Your task to perform on an android device: star an email in the gmail app Image 0: 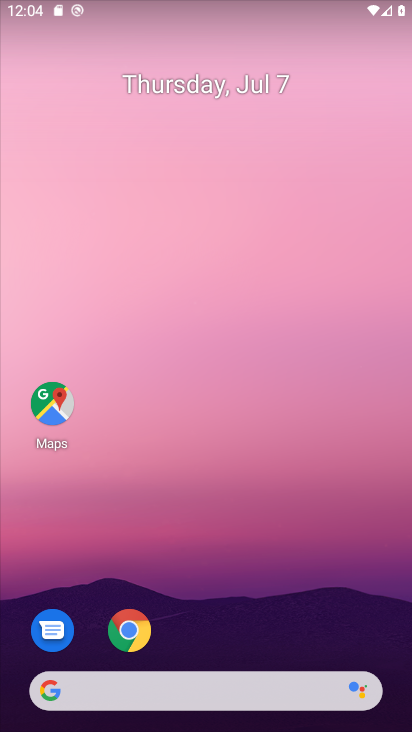
Step 0: drag from (163, 631) to (205, 241)
Your task to perform on an android device: star an email in the gmail app Image 1: 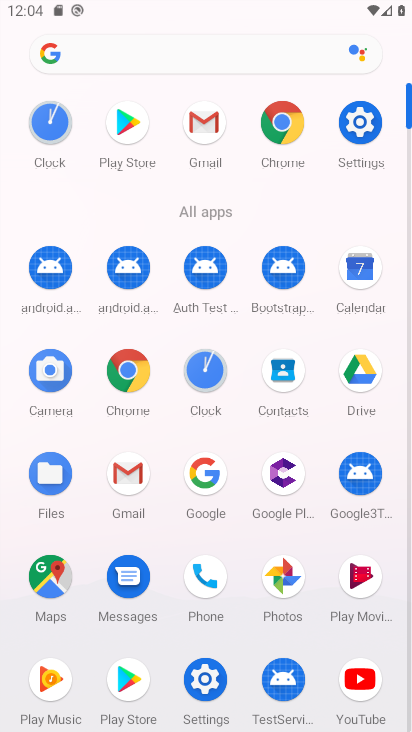
Step 1: click (204, 115)
Your task to perform on an android device: star an email in the gmail app Image 2: 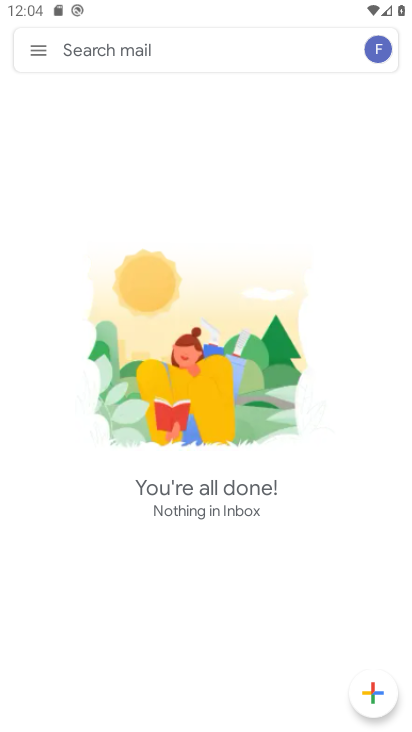
Step 2: task complete